Your task to perform on an android device: turn notification dots on Image 0: 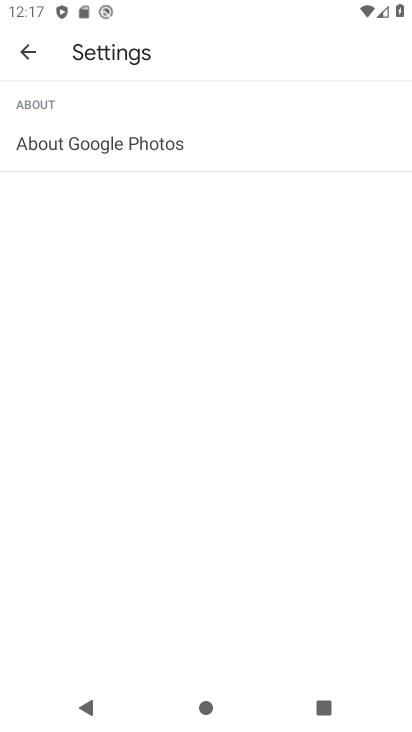
Step 0: press home button
Your task to perform on an android device: turn notification dots on Image 1: 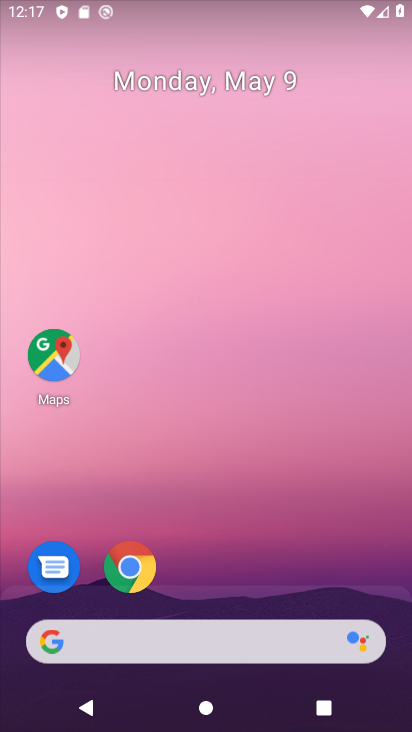
Step 1: drag from (212, 622) to (287, 23)
Your task to perform on an android device: turn notification dots on Image 2: 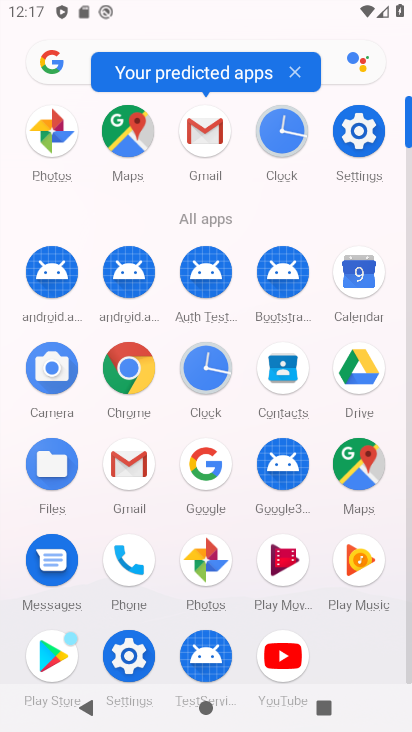
Step 2: click (362, 166)
Your task to perform on an android device: turn notification dots on Image 3: 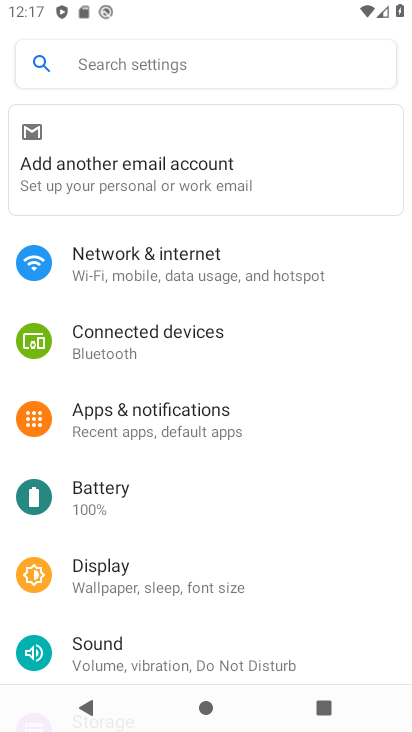
Step 3: click (201, 437)
Your task to perform on an android device: turn notification dots on Image 4: 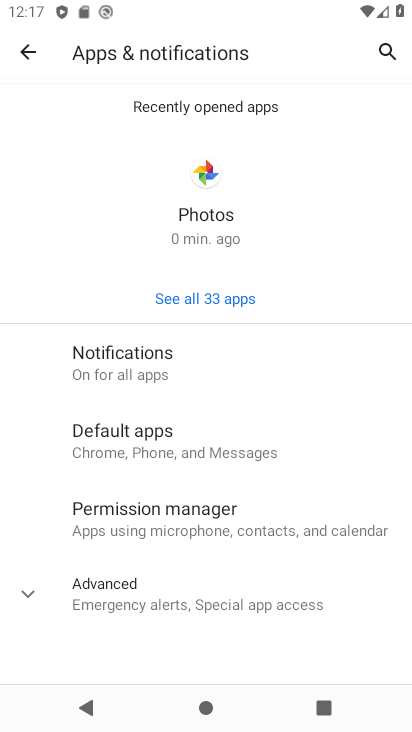
Step 4: drag from (162, 557) to (204, 358)
Your task to perform on an android device: turn notification dots on Image 5: 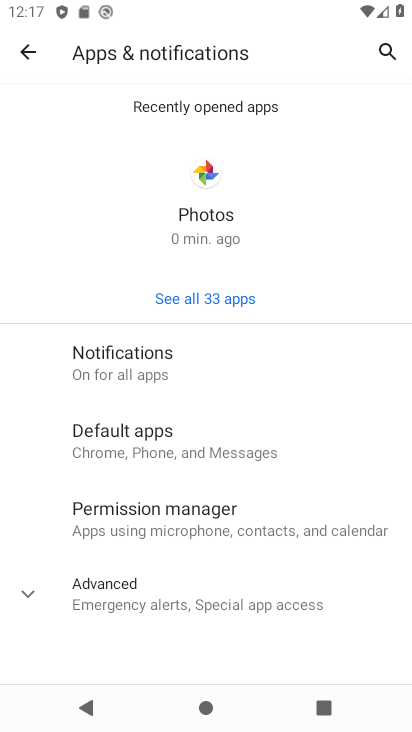
Step 5: click (127, 376)
Your task to perform on an android device: turn notification dots on Image 6: 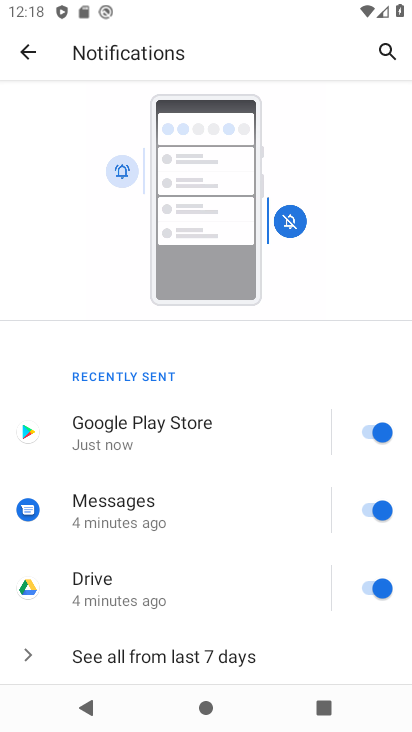
Step 6: drag from (179, 608) to (267, 247)
Your task to perform on an android device: turn notification dots on Image 7: 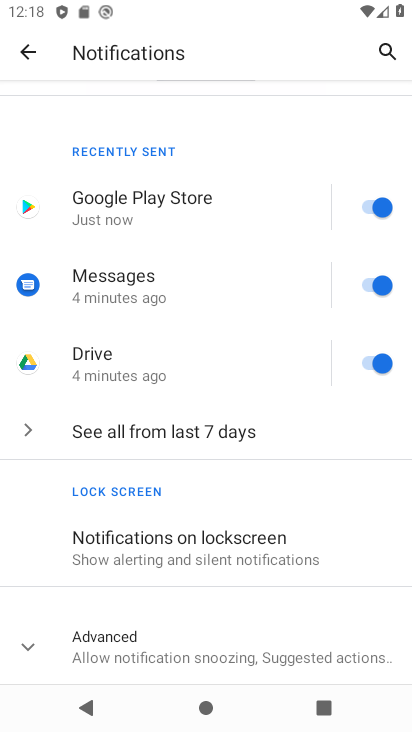
Step 7: click (174, 645)
Your task to perform on an android device: turn notification dots on Image 8: 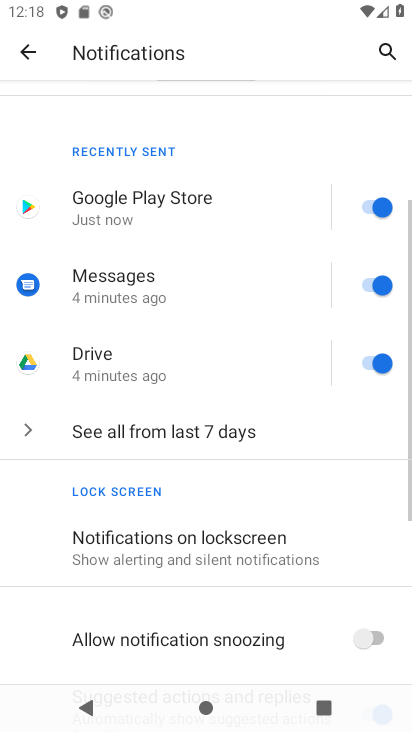
Step 8: task complete